Your task to perform on an android device: open chrome and create a bookmark for the current page Image 0: 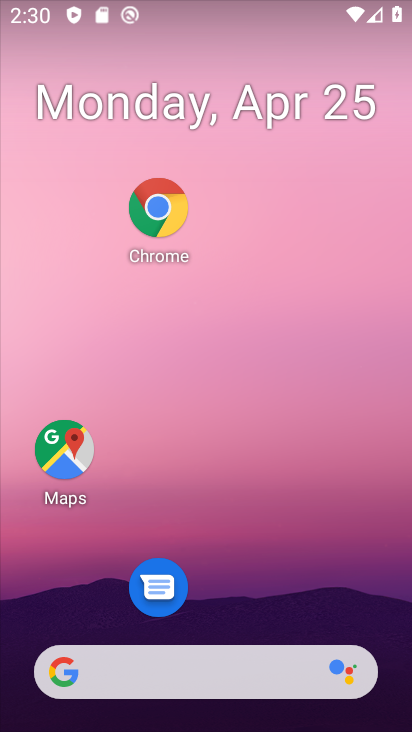
Step 0: click (173, 210)
Your task to perform on an android device: open chrome and create a bookmark for the current page Image 1: 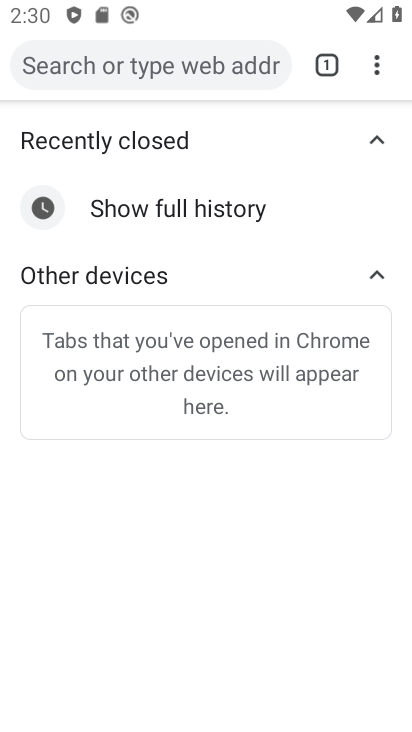
Step 1: click (182, 56)
Your task to perform on an android device: open chrome and create a bookmark for the current page Image 2: 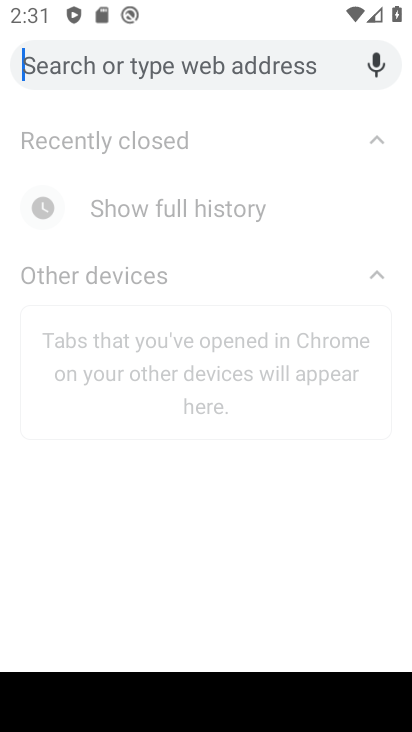
Step 2: type "ebay"
Your task to perform on an android device: open chrome and create a bookmark for the current page Image 3: 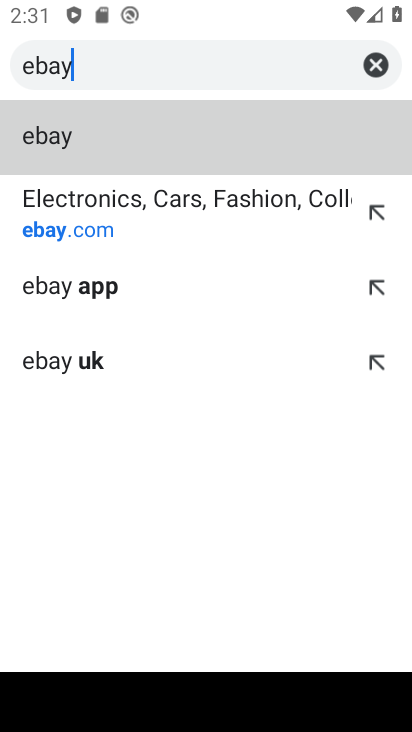
Step 3: click (91, 207)
Your task to perform on an android device: open chrome and create a bookmark for the current page Image 4: 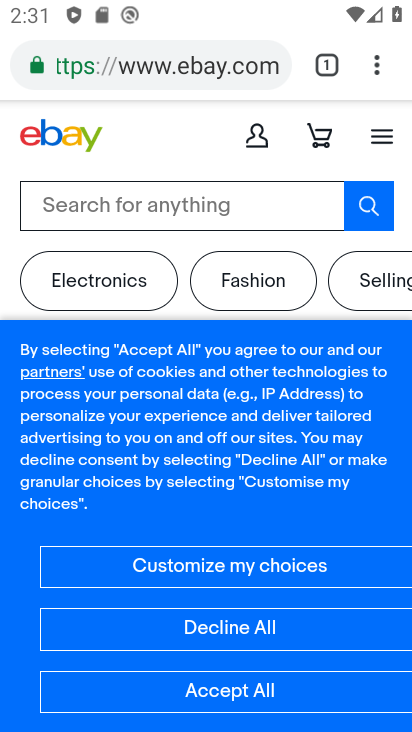
Step 4: click (373, 64)
Your task to perform on an android device: open chrome and create a bookmark for the current page Image 5: 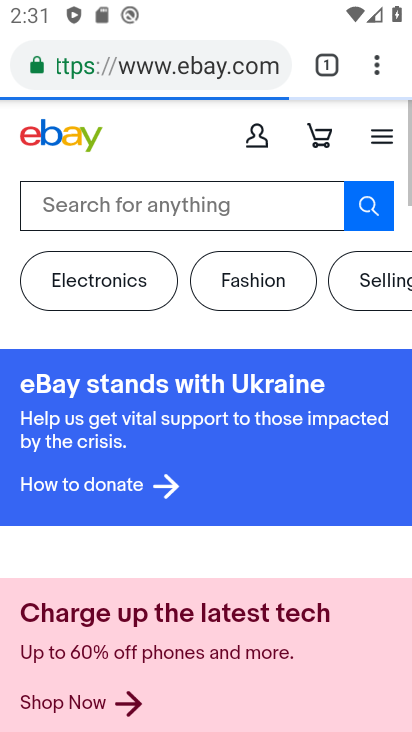
Step 5: task complete